Your task to perform on an android device: check google app version Image 0: 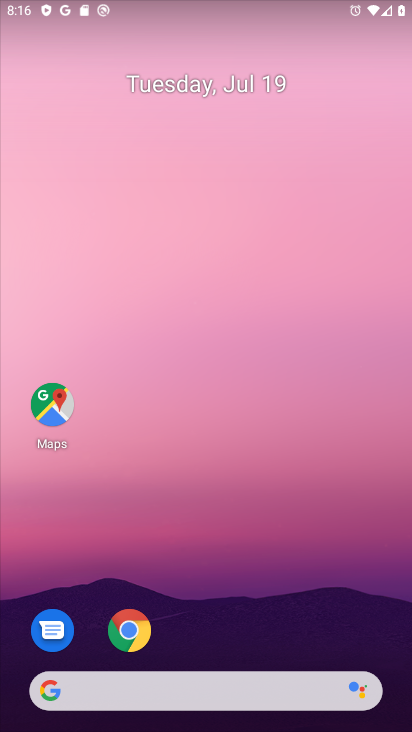
Step 0: drag from (262, 651) to (254, 160)
Your task to perform on an android device: check google app version Image 1: 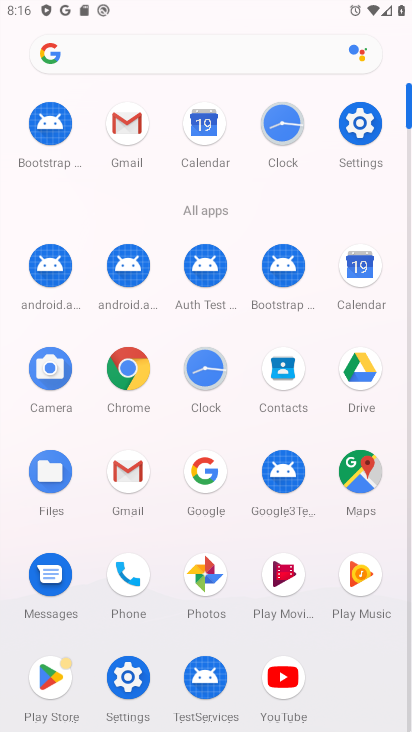
Step 1: click (205, 486)
Your task to perform on an android device: check google app version Image 2: 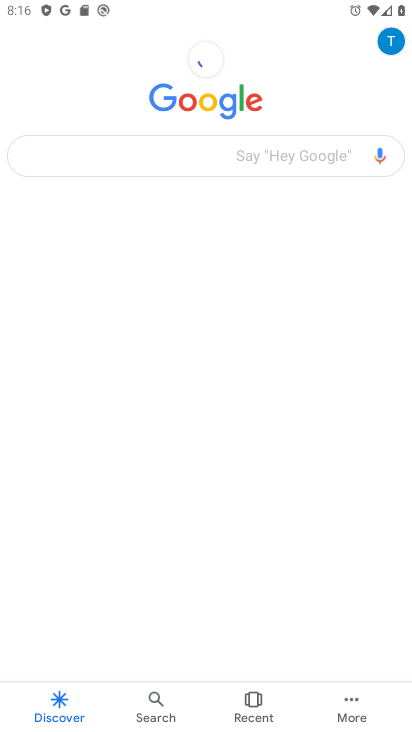
Step 2: click (356, 731)
Your task to perform on an android device: check google app version Image 3: 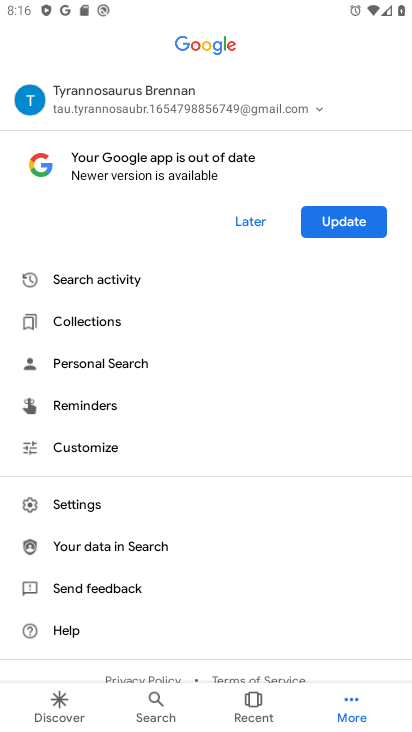
Step 3: click (139, 501)
Your task to perform on an android device: check google app version Image 4: 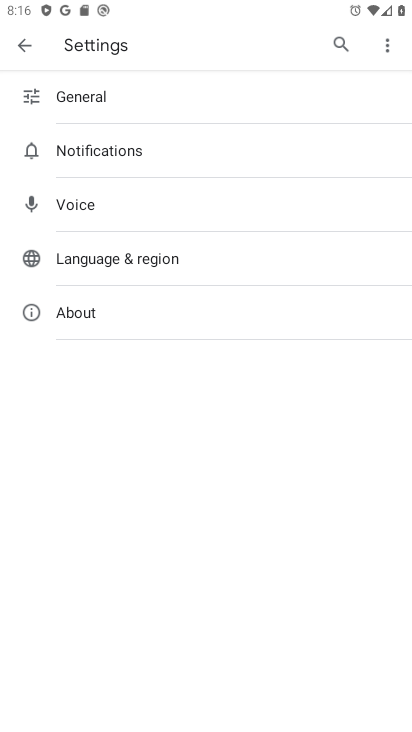
Step 4: click (121, 326)
Your task to perform on an android device: check google app version Image 5: 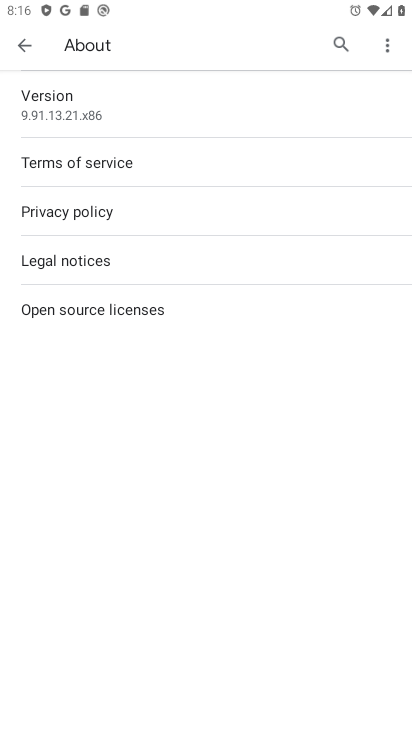
Step 5: click (103, 88)
Your task to perform on an android device: check google app version Image 6: 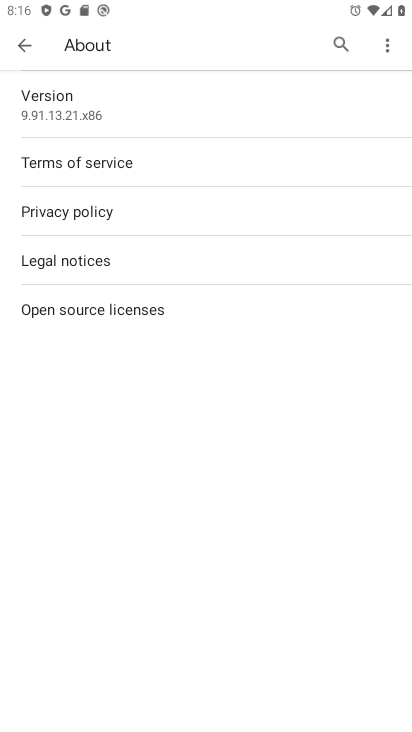
Step 6: task complete